Your task to perform on an android device: Open network settings Image 0: 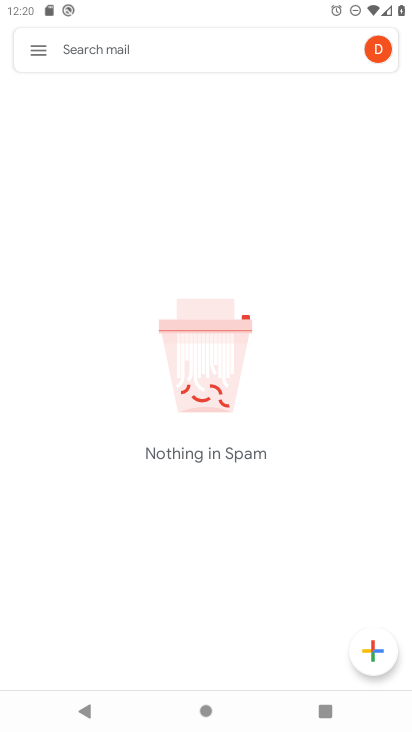
Step 0: press home button
Your task to perform on an android device: Open network settings Image 1: 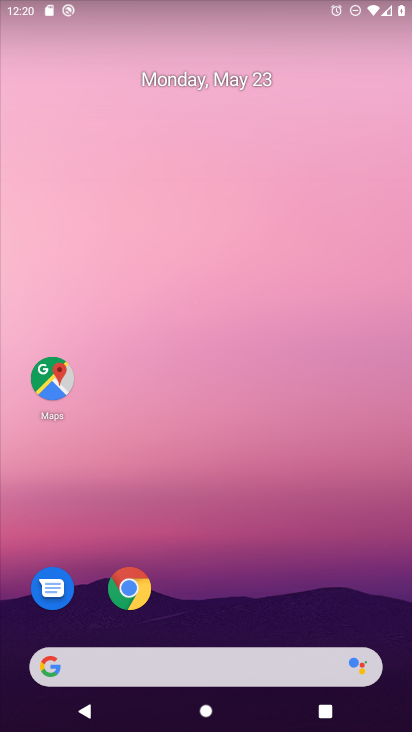
Step 1: drag from (252, 645) to (173, 158)
Your task to perform on an android device: Open network settings Image 2: 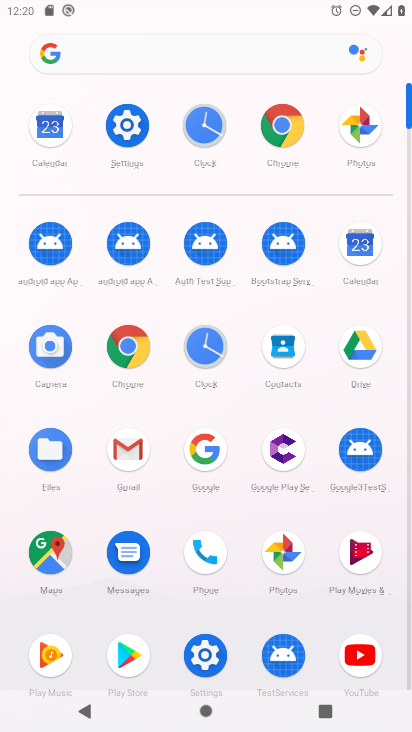
Step 2: click (207, 646)
Your task to perform on an android device: Open network settings Image 3: 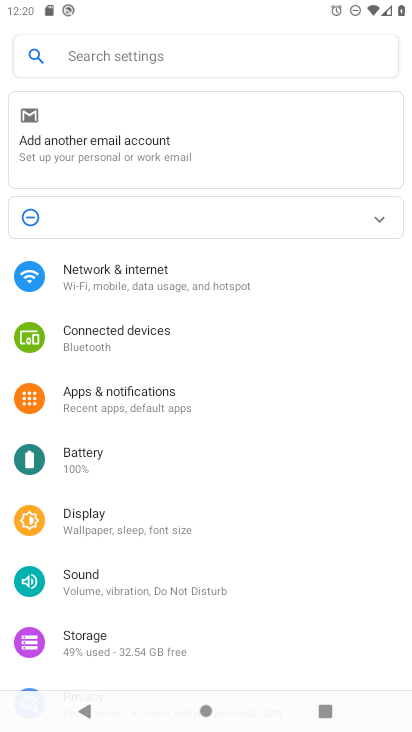
Step 3: click (147, 302)
Your task to perform on an android device: Open network settings Image 4: 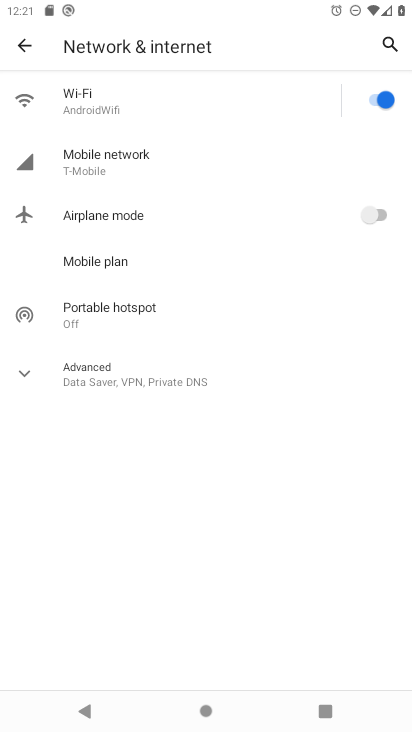
Step 4: task complete